Your task to perform on an android device: Go to Yahoo.com Image 0: 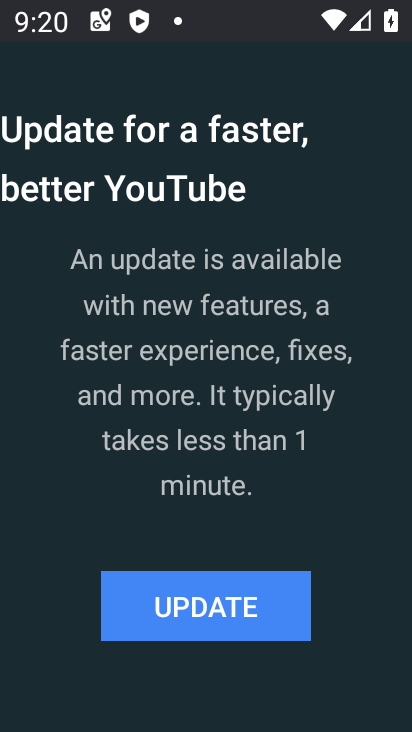
Step 0: press home button
Your task to perform on an android device: Go to Yahoo.com Image 1: 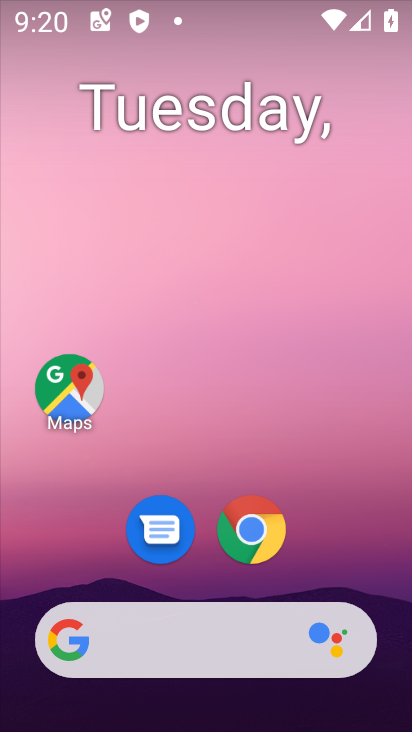
Step 1: click (246, 534)
Your task to perform on an android device: Go to Yahoo.com Image 2: 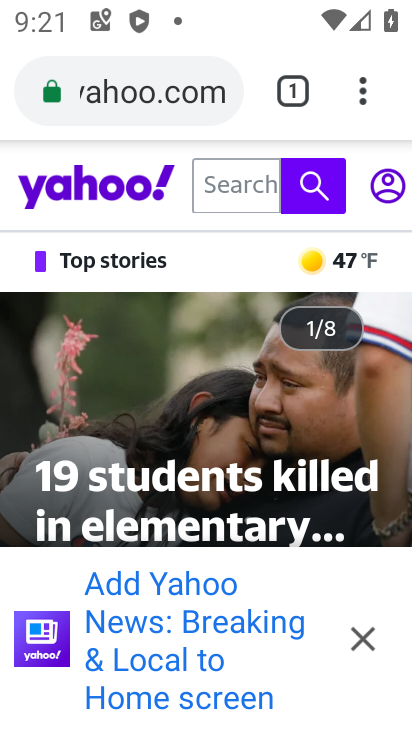
Step 2: task complete